Your task to perform on an android device: Go to internet settings Image 0: 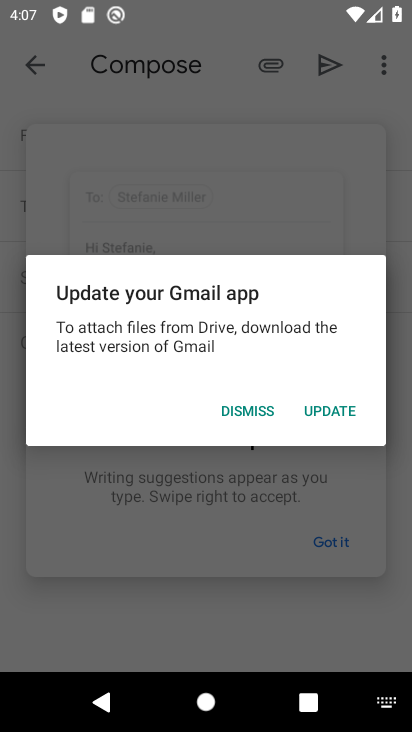
Step 0: press home button
Your task to perform on an android device: Go to internet settings Image 1: 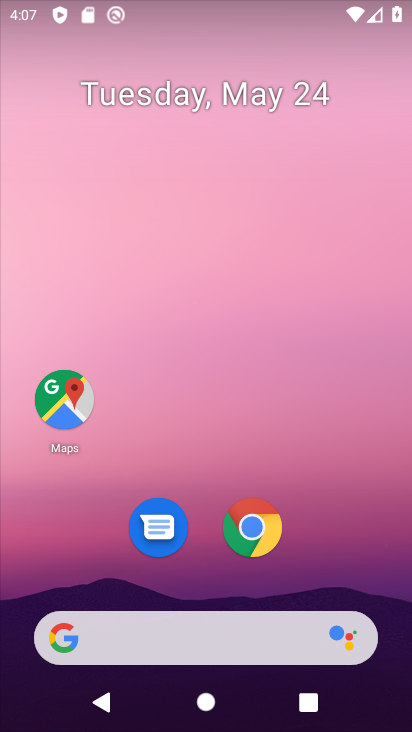
Step 1: drag from (155, 620) to (279, 82)
Your task to perform on an android device: Go to internet settings Image 2: 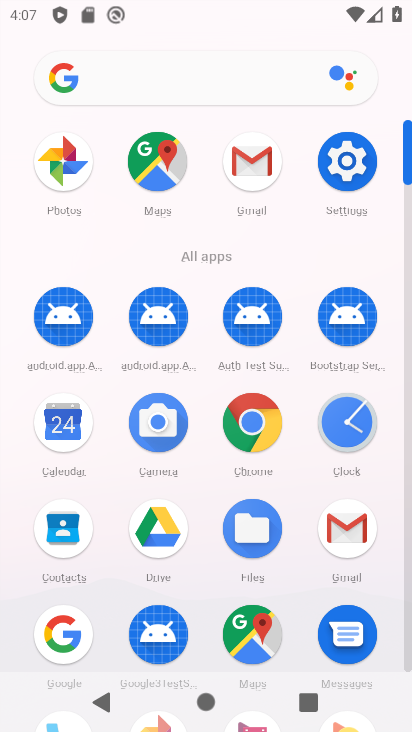
Step 2: drag from (101, 623) to (253, 388)
Your task to perform on an android device: Go to internet settings Image 3: 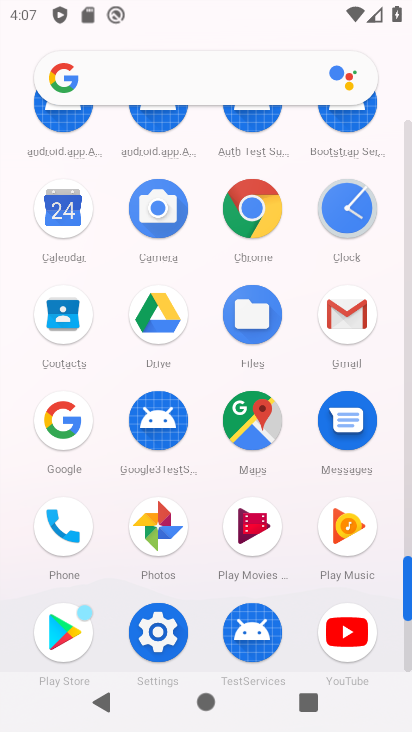
Step 3: click (164, 640)
Your task to perform on an android device: Go to internet settings Image 4: 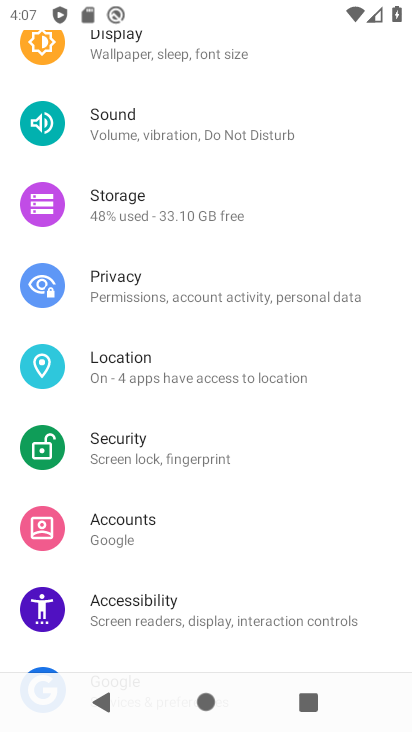
Step 4: drag from (244, 107) to (200, 460)
Your task to perform on an android device: Go to internet settings Image 5: 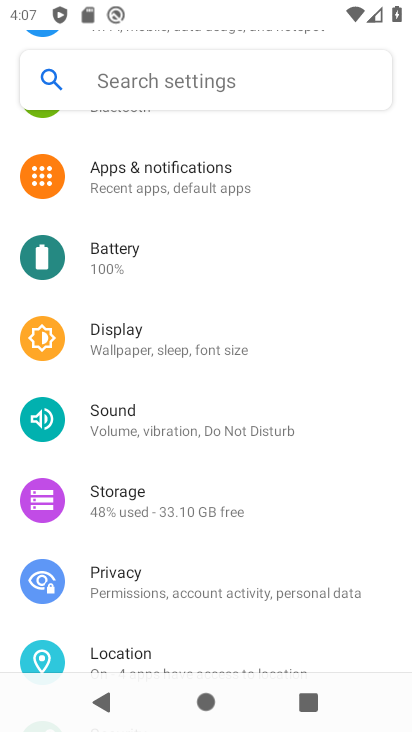
Step 5: drag from (221, 189) to (169, 529)
Your task to perform on an android device: Go to internet settings Image 6: 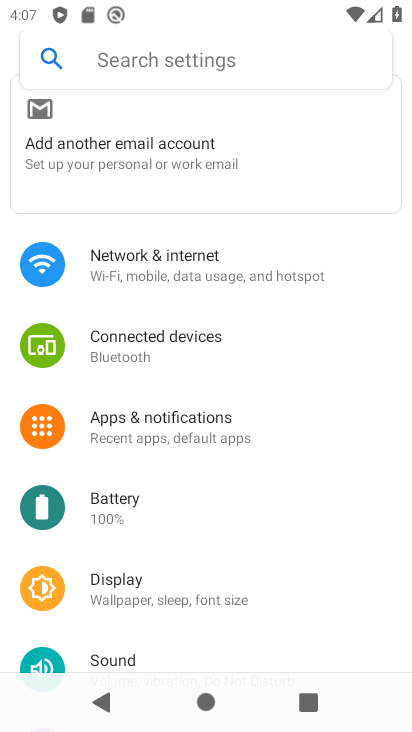
Step 6: click (241, 273)
Your task to perform on an android device: Go to internet settings Image 7: 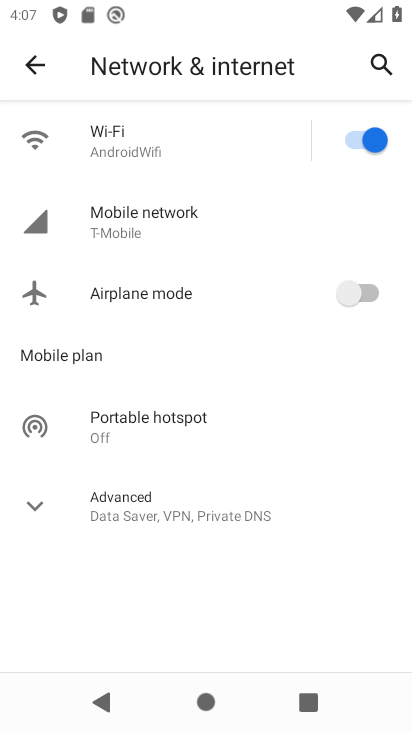
Step 7: click (193, 222)
Your task to perform on an android device: Go to internet settings Image 8: 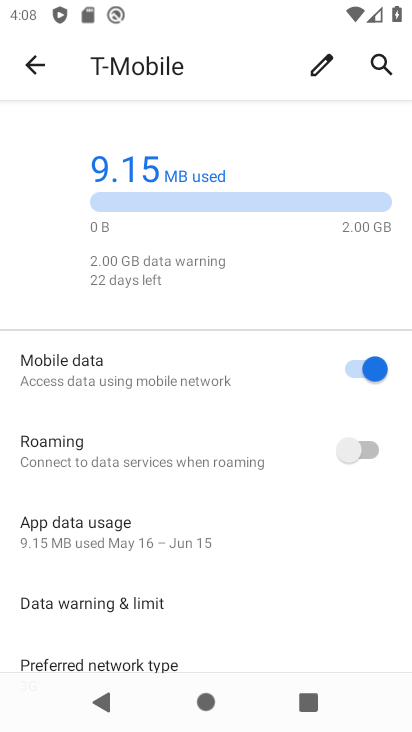
Step 8: task complete